Your task to perform on an android device: What's the weather going to be tomorrow? Image 0: 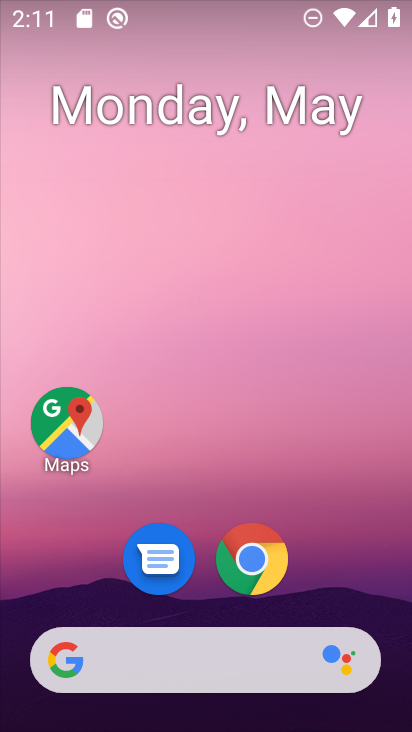
Step 0: click (399, 602)
Your task to perform on an android device: What's the weather going to be tomorrow? Image 1: 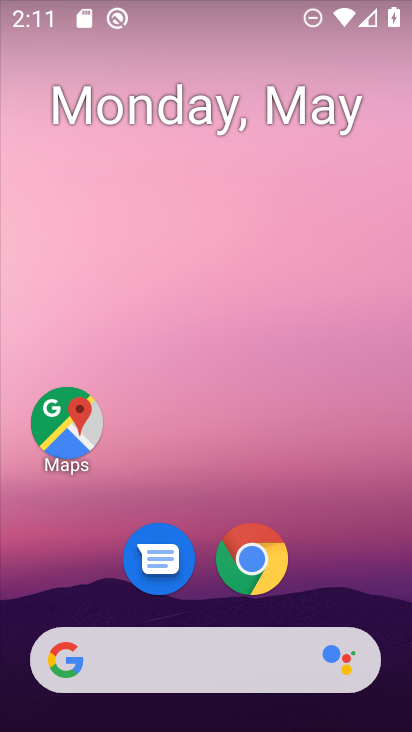
Step 1: click (104, 662)
Your task to perform on an android device: What's the weather going to be tomorrow? Image 2: 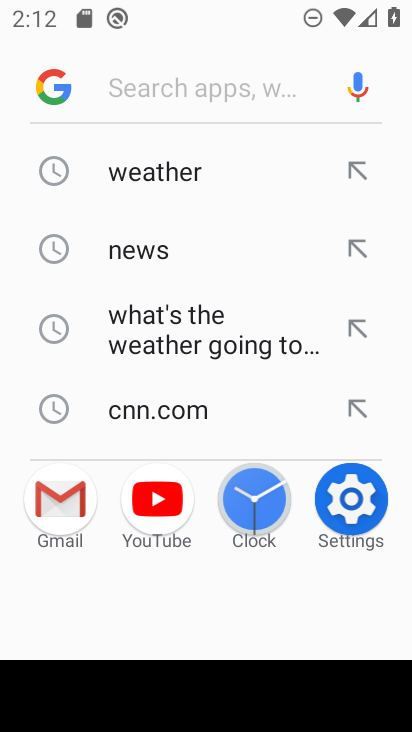
Step 2: click (147, 184)
Your task to perform on an android device: What's the weather going to be tomorrow? Image 3: 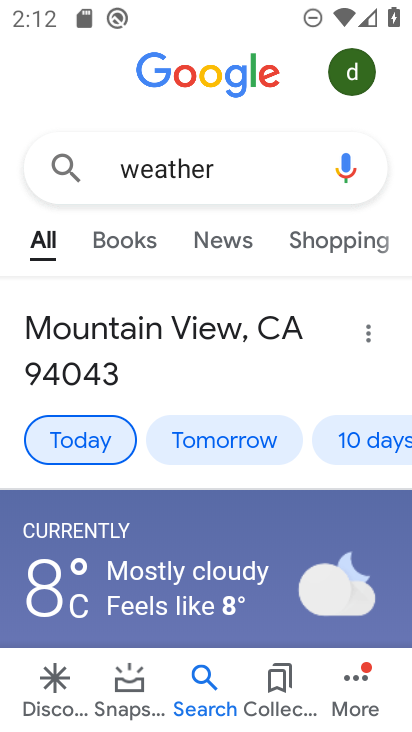
Step 3: click (198, 451)
Your task to perform on an android device: What's the weather going to be tomorrow? Image 4: 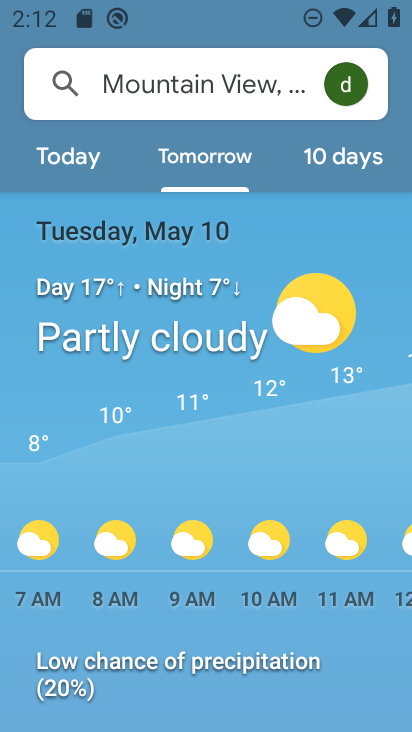
Step 4: task complete